Your task to perform on an android device: see tabs open on other devices in the chrome app Image 0: 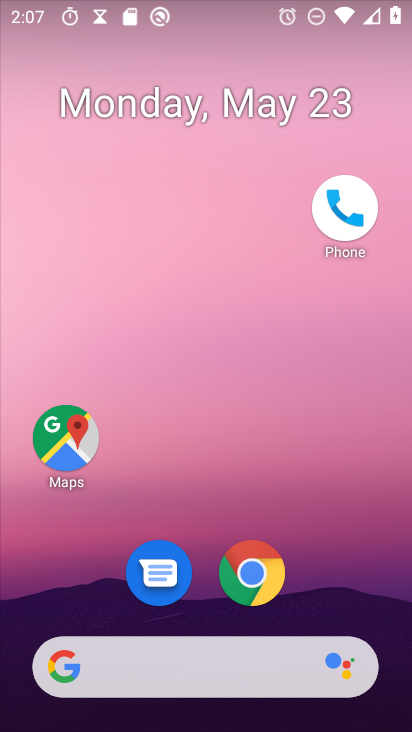
Step 0: press home button
Your task to perform on an android device: see tabs open on other devices in the chrome app Image 1: 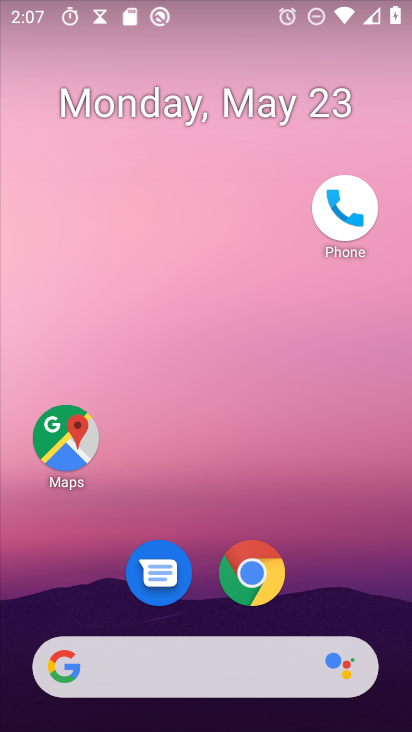
Step 1: click (251, 582)
Your task to perform on an android device: see tabs open on other devices in the chrome app Image 2: 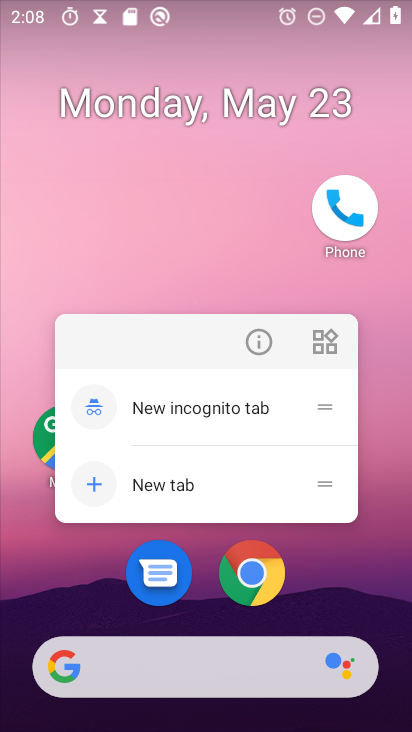
Step 2: click (261, 570)
Your task to perform on an android device: see tabs open on other devices in the chrome app Image 3: 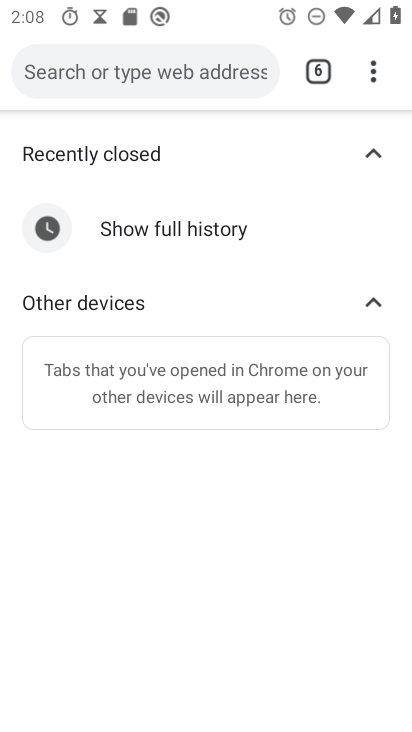
Step 3: task complete